Your task to perform on an android device: turn on wifi Image 0: 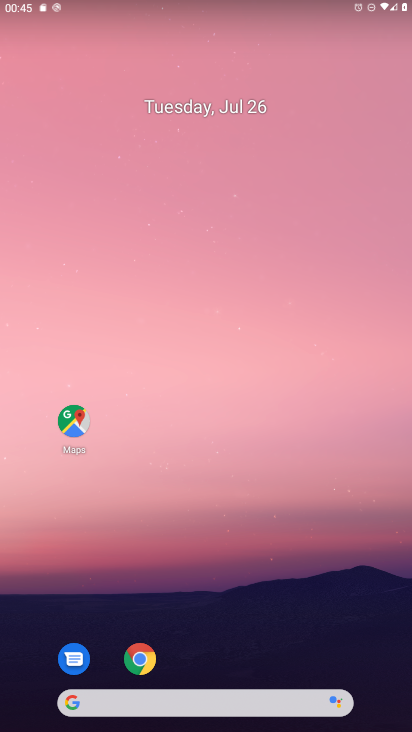
Step 0: drag from (73, 0) to (41, 423)
Your task to perform on an android device: turn on wifi Image 1: 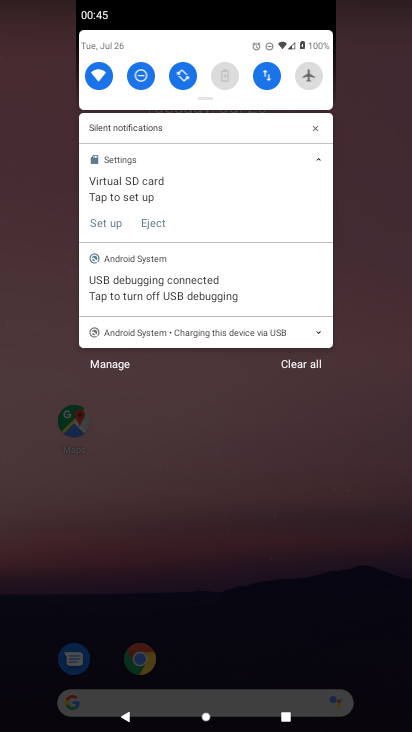
Step 1: task complete